Your task to perform on an android device: Open calendar and show me the third week of next month Image 0: 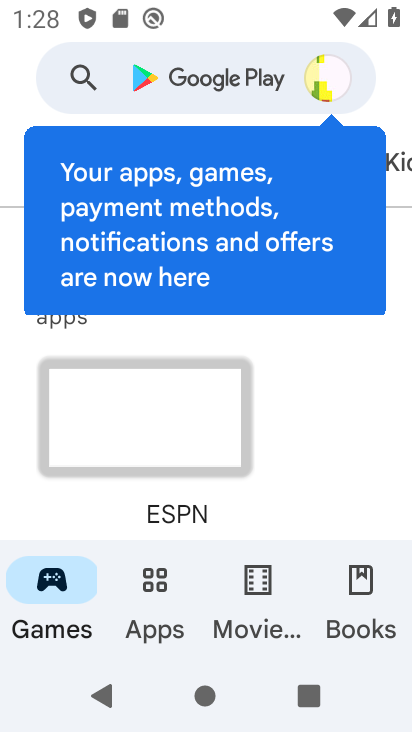
Step 0: press home button
Your task to perform on an android device: Open calendar and show me the third week of next month Image 1: 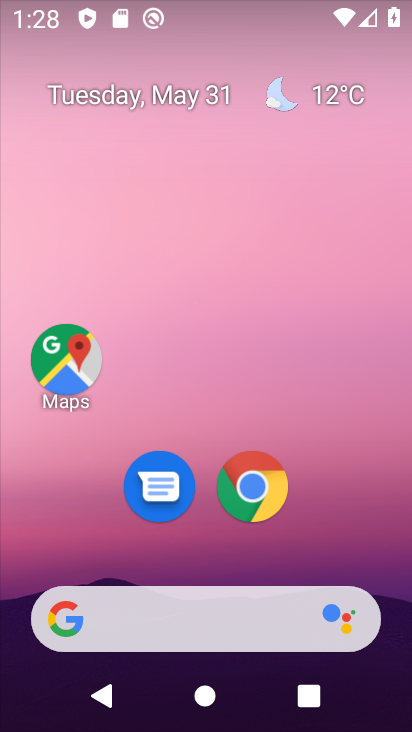
Step 1: drag from (206, 561) to (215, 42)
Your task to perform on an android device: Open calendar and show me the third week of next month Image 2: 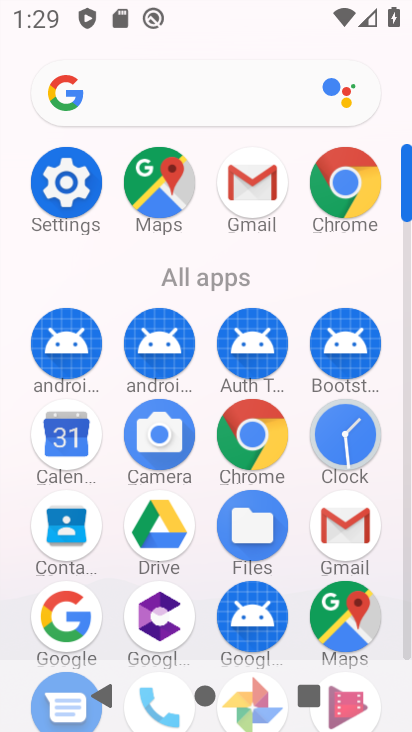
Step 2: click (51, 464)
Your task to perform on an android device: Open calendar and show me the third week of next month Image 3: 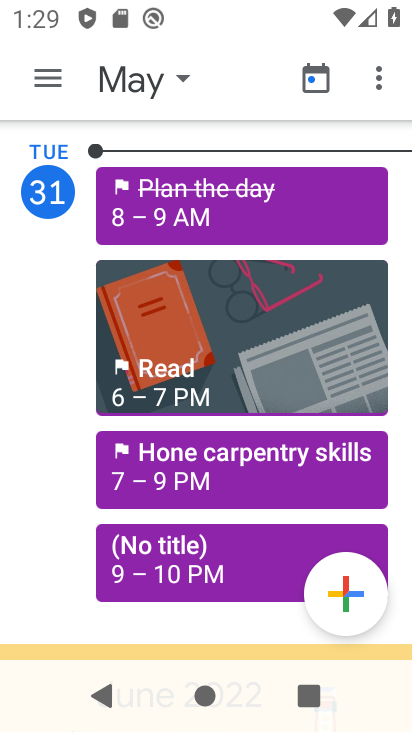
Step 3: click (43, 82)
Your task to perform on an android device: Open calendar and show me the third week of next month Image 4: 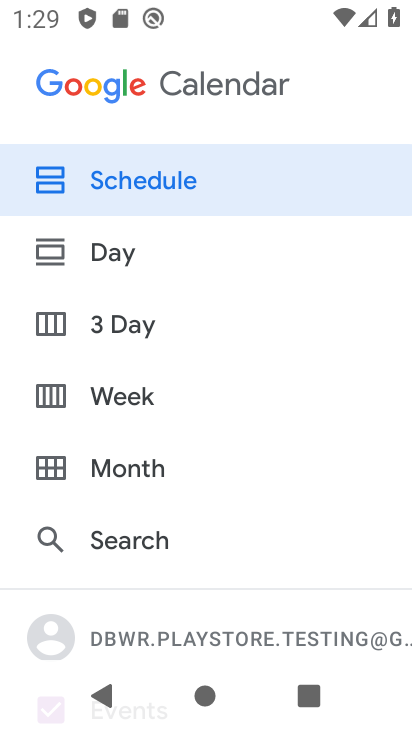
Step 4: click (147, 408)
Your task to perform on an android device: Open calendar and show me the third week of next month Image 5: 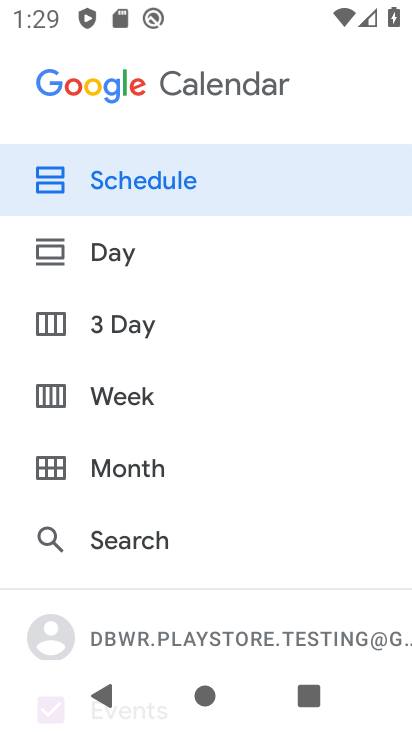
Step 5: click (125, 402)
Your task to perform on an android device: Open calendar and show me the third week of next month Image 6: 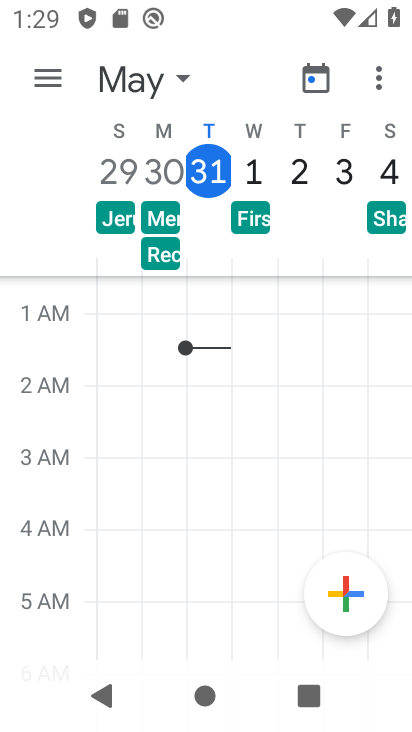
Step 6: click (122, 93)
Your task to perform on an android device: Open calendar and show me the third week of next month Image 7: 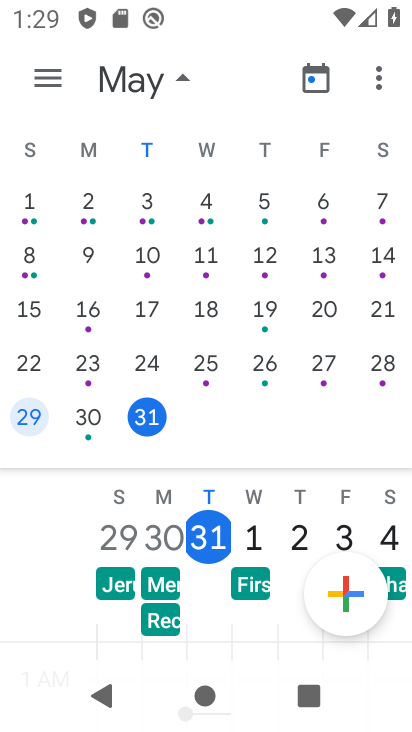
Step 7: drag from (307, 259) to (51, 306)
Your task to perform on an android device: Open calendar and show me the third week of next month Image 8: 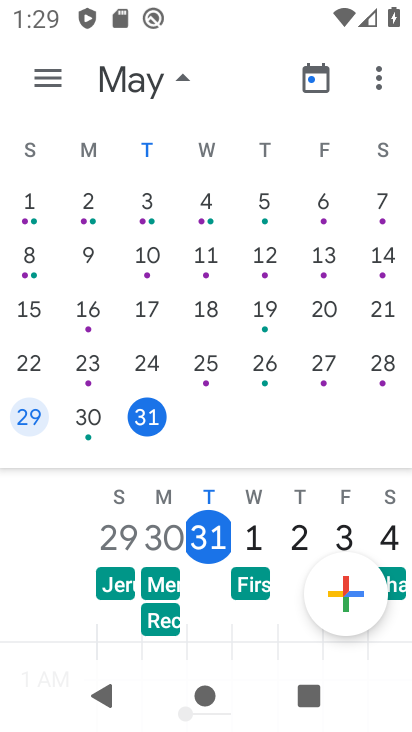
Step 8: drag from (365, 316) to (23, 326)
Your task to perform on an android device: Open calendar and show me the third week of next month Image 9: 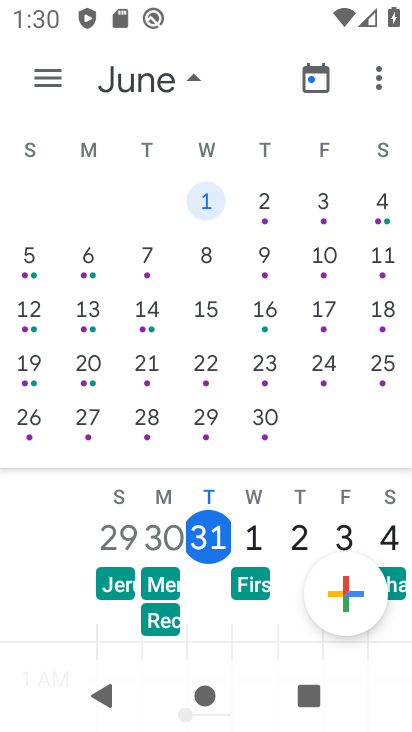
Step 9: click (26, 371)
Your task to perform on an android device: Open calendar and show me the third week of next month Image 10: 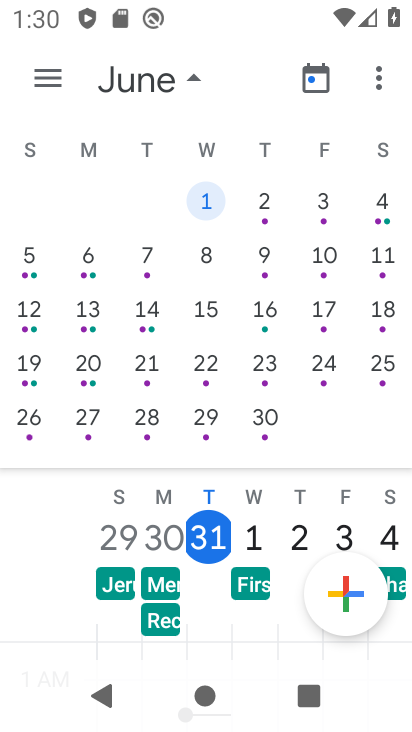
Step 10: click (26, 371)
Your task to perform on an android device: Open calendar and show me the third week of next month Image 11: 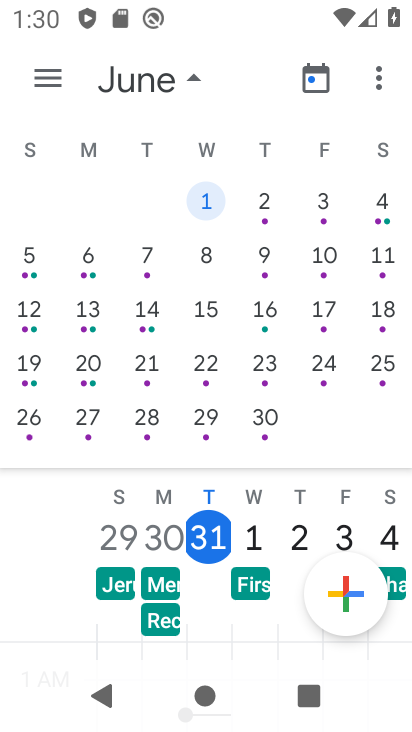
Step 11: click (33, 363)
Your task to perform on an android device: Open calendar and show me the third week of next month Image 12: 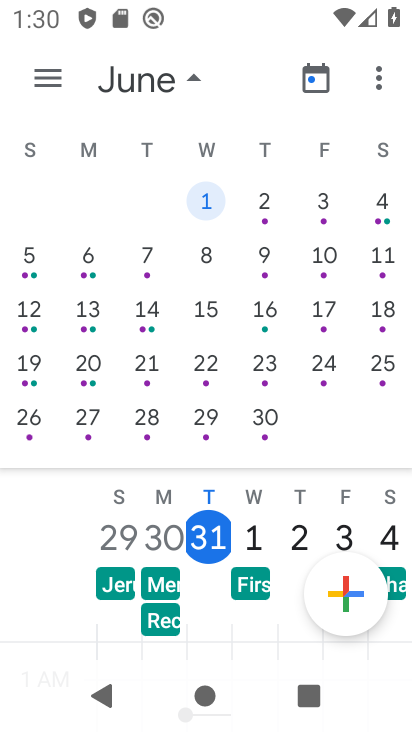
Step 12: click (33, 363)
Your task to perform on an android device: Open calendar and show me the third week of next month Image 13: 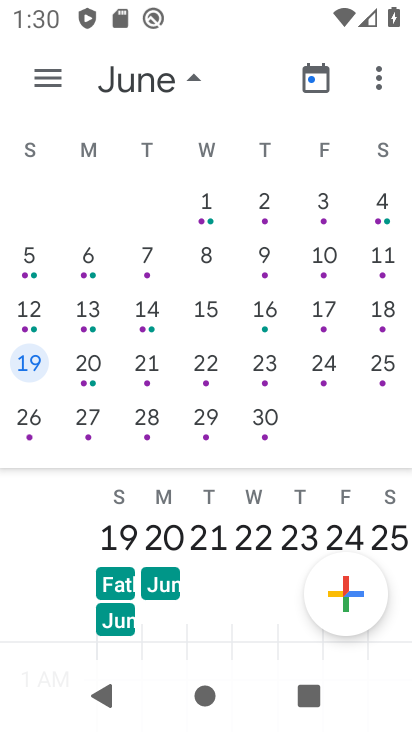
Step 13: task complete